Your task to perform on an android device: turn pop-ups on in chrome Image 0: 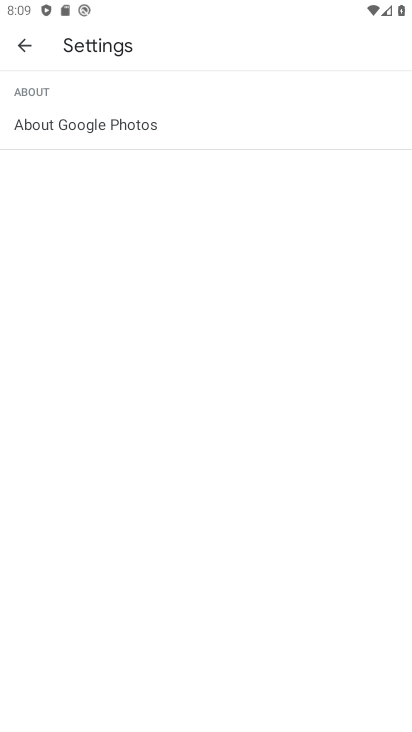
Step 0: press home button
Your task to perform on an android device: turn pop-ups on in chrome Image 1: 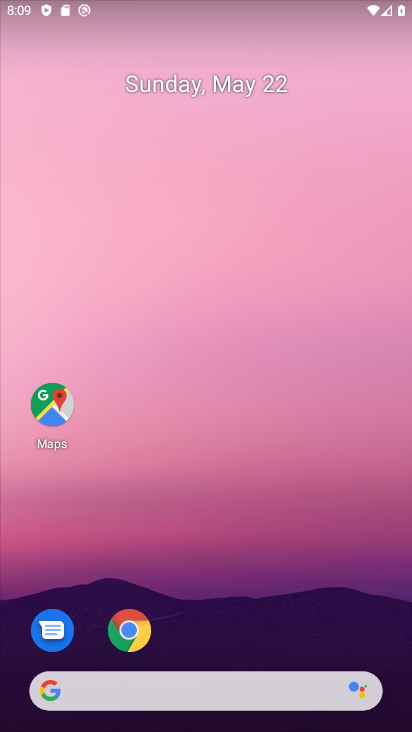
Step 1: drag from (379, 632) to (358, 247)
Your task to perform on an android device: turn pop-ups on in chrome Image 2: 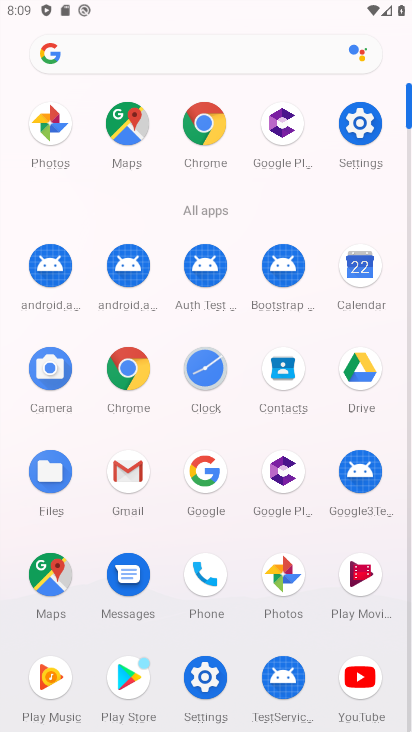
Step 2: click (135, 378)
Your task to perform on an android device: turn pop-ups on in chrome Image 3: 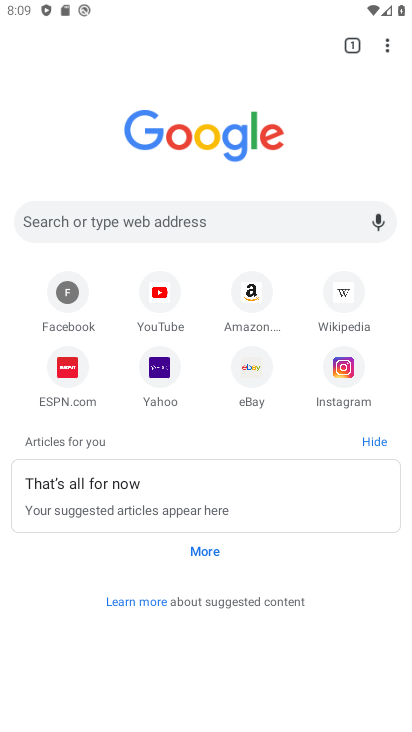
Step 3: click (387, 49)
Your task to perform on an android device: turn pop-ups on in chrome Image 4: 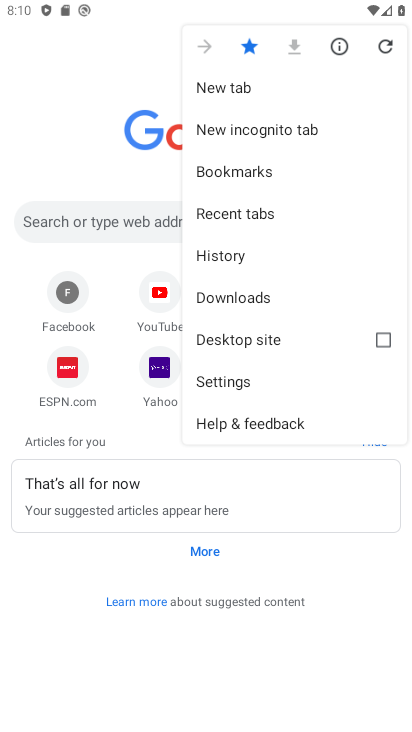
Step 4: click (259, 393)
Your task to perform on an android device: turn pop-ups on in chrome Image 5: 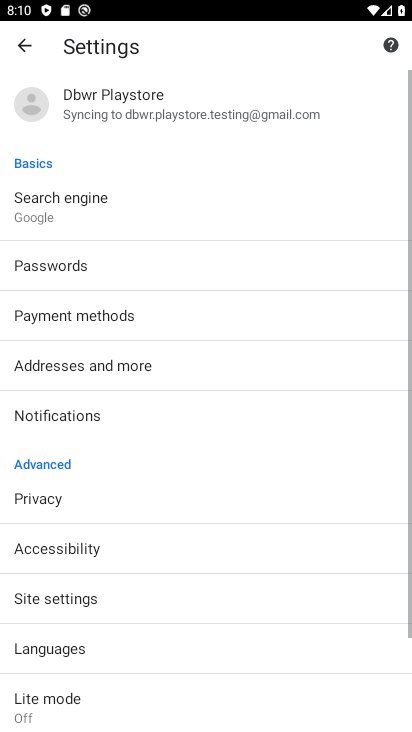
Step 5: drag from (254, 491) to (258, 410)
Your task to perform on an android device: turn pop-ups on in chrome Image 6: 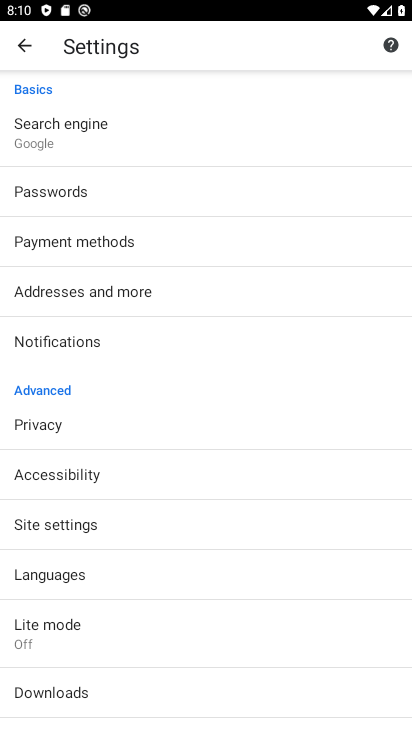
Step 6: drag from (255, 503) to (261, 411)
Your task to perform on an android device: turn pop-ups on in chrome Image 7: 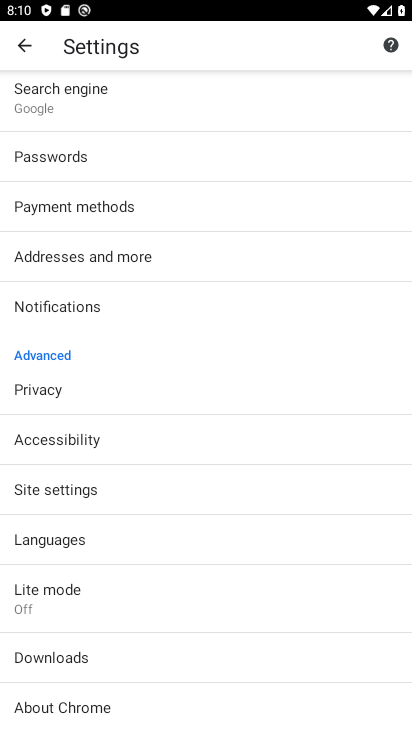
Step 7: click (231, 495)
Your task to perform on an android device: turn pop-ups on in chrome Image 8: 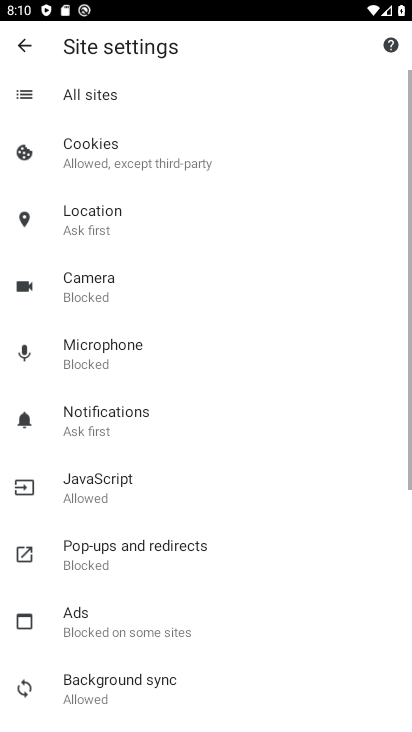
Step 8: drag from (259, 521) to (276, 411)
Your task to perform on an android device: turn pop-ups on in chrome Image 9: 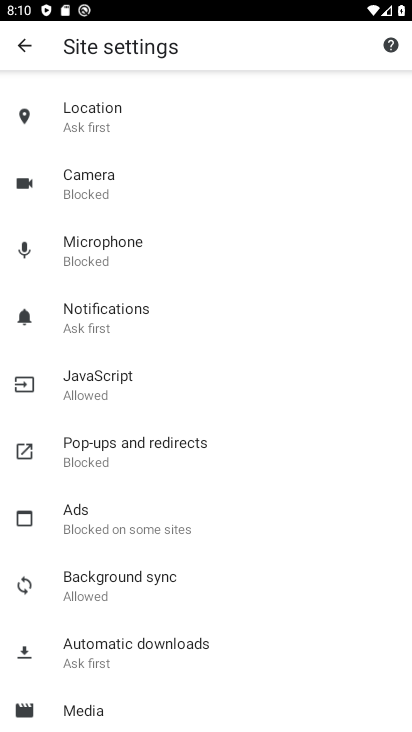
Step 9: drag from (277, 517) to (279, 401)
Your task to perform on an android device: turn pop-ups on in chrome Image 10: 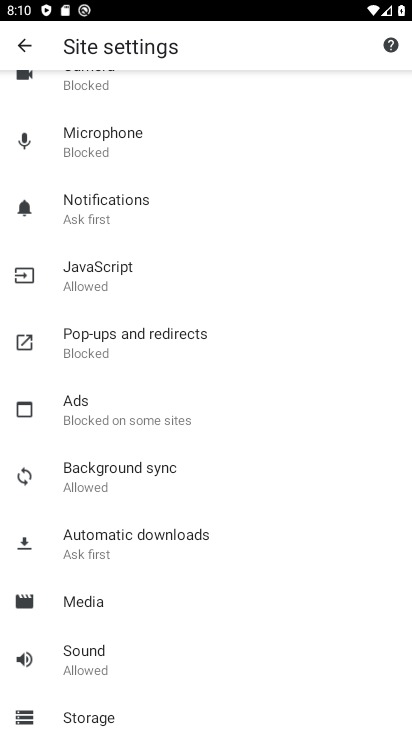
Step 10: drag from (302, 599) to (298, 452)
Your task to perform on an android device: turn pop-ups on in chrome Image 11: 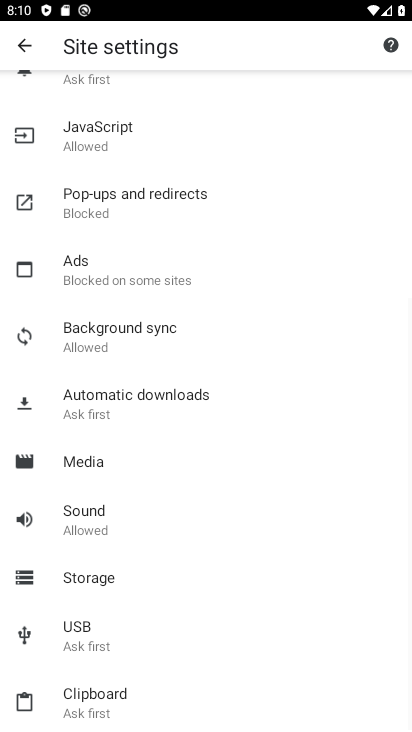
Step 11: drag from (314, 614) to (292, 482)
Your task to perform on an android device: turn pop-ups on in chrome Image 12: 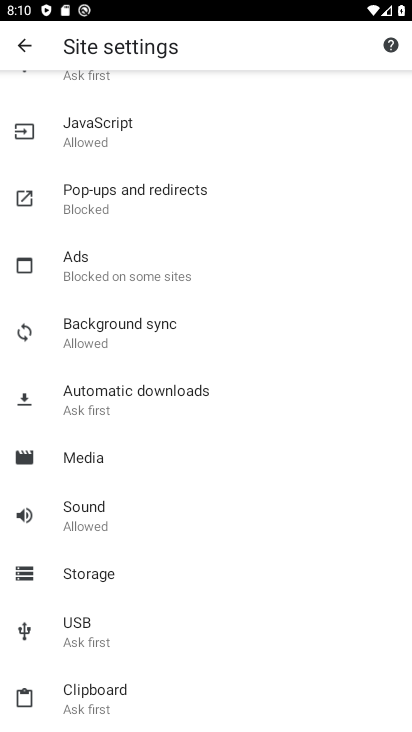
Step 12: drag from (286, 344) to (259, 468)
Your task to perform on an android device: turn pop-ups on in chrome Image 13: 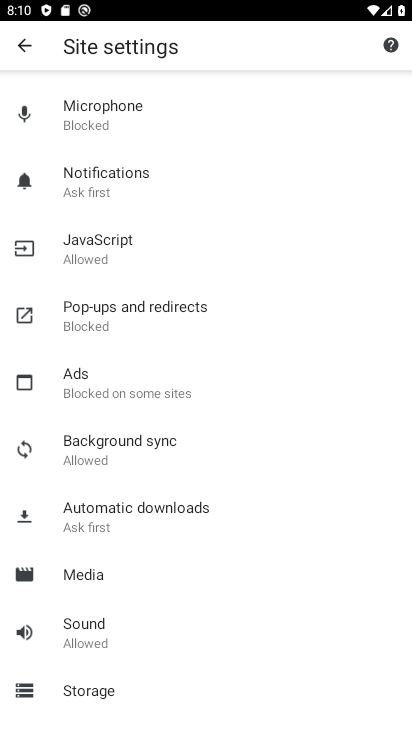
Step 13: drag from (274, 338) to (274, 485)
Your task to perform on an android device: turn pop-ups on in chrome Image 14: 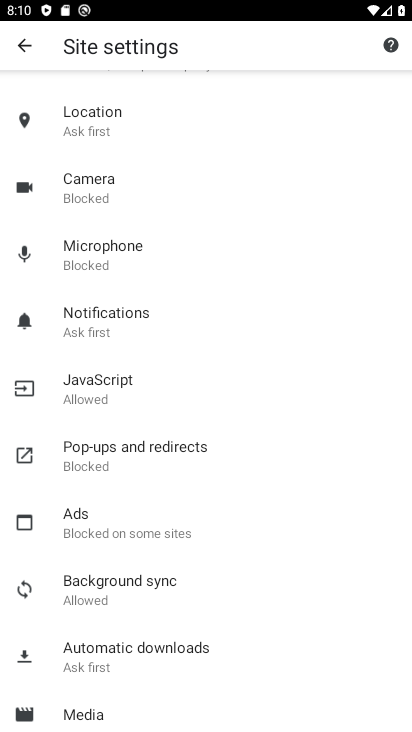
Step 14: drag from (296, 334) to (279, 487)
Your task to perform on an android device: turn pop-ups on in chrome Image 15: 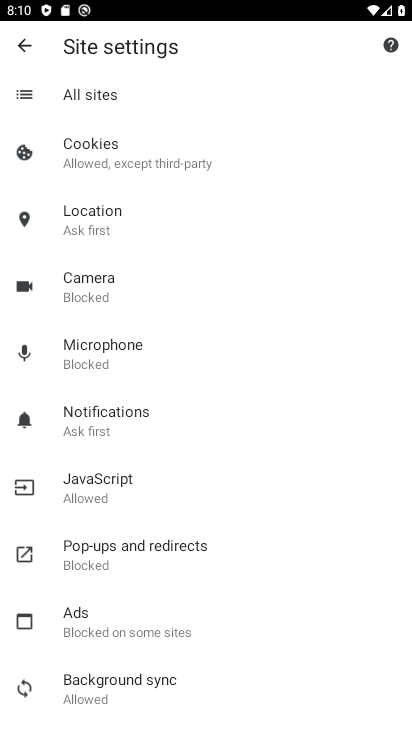
Step 15: drag from (304, 302) to (288, 478)
Your task to perform on an android device: turn pop-ups on in chrome Image 16: 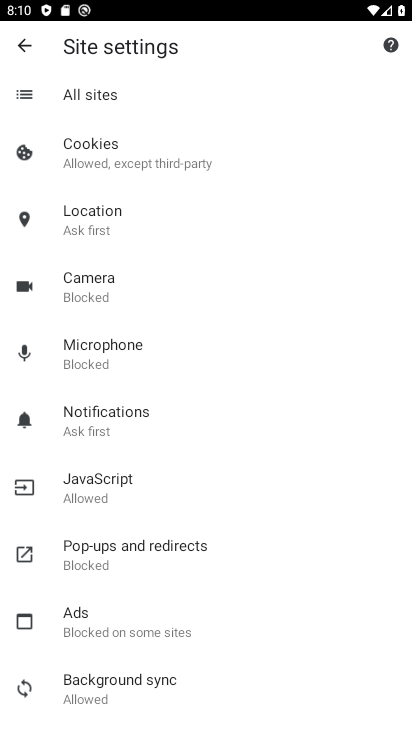
Step 16: drag from (303, 544) to (310, 419)
Your task to perform on an android device: turn pop-ups on in chrome Image 17: 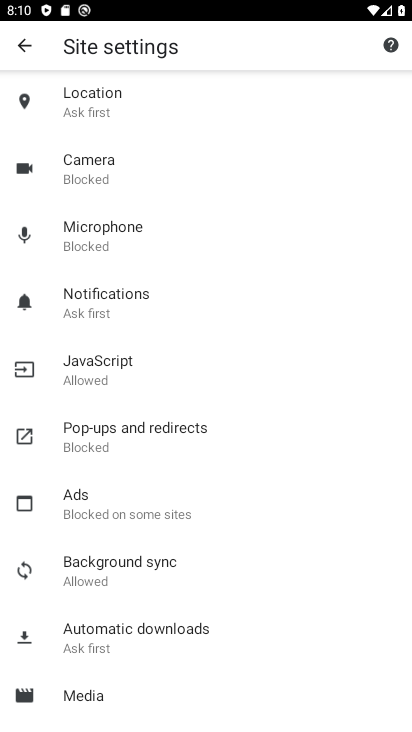
Step 17: drag from (309, 538) to (305, 430)
Your task to perform on an android device: turn pop-ups on in chrome Image 18: 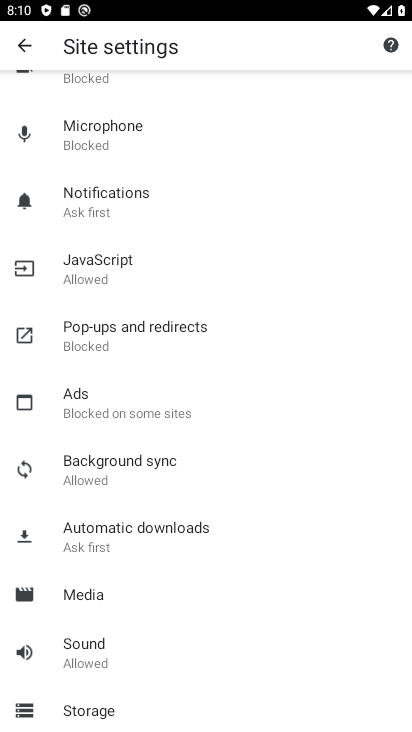
Step 18: click (177, 333)
Your task to perform on an android device: turn pop-ups on in chrome Image 19: 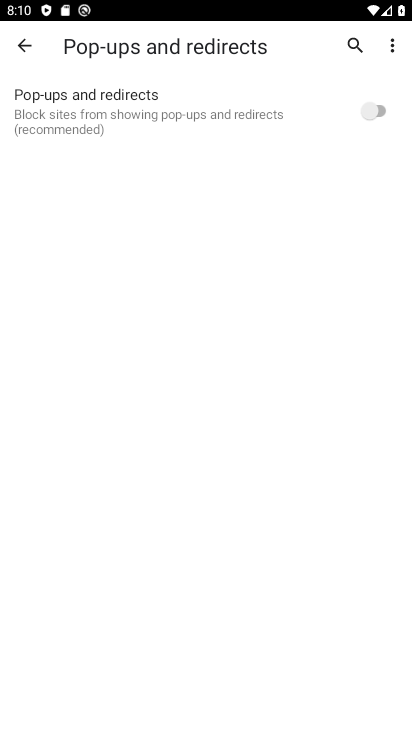
Step 19: click (371, 114)
Your task to perform on an android device: turn pop-ups on in chrome Image 20: 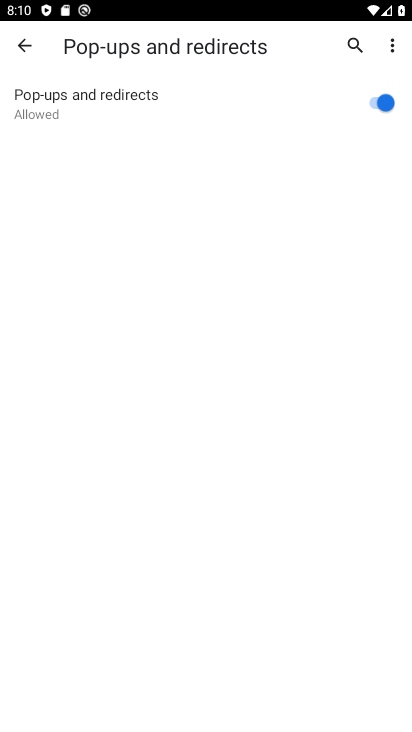
Step 20: task complete